Your task to perform on an android device: turn off smart reply in the gmail app Image 0: 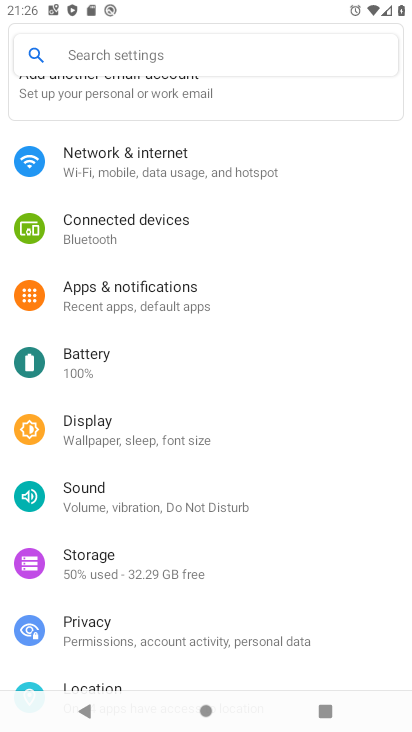
Step 0: press home button
Your task to perform on an android device: turn off smart reply in the gmail app Image 1: 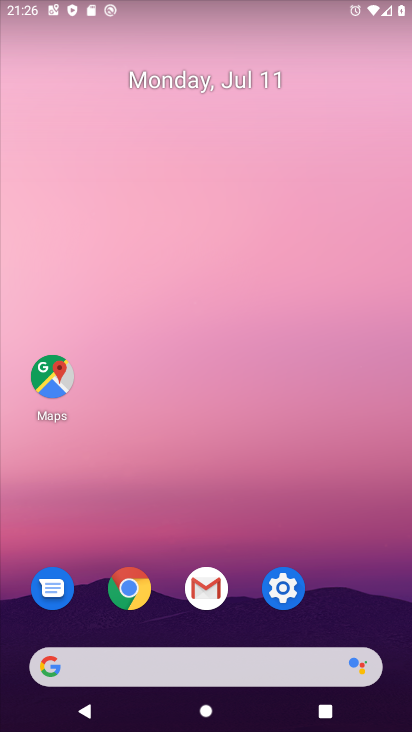
Step 1: click (217, 574)
Your task to perform on an android device: turn off smart reply in the gmail app Image 2: 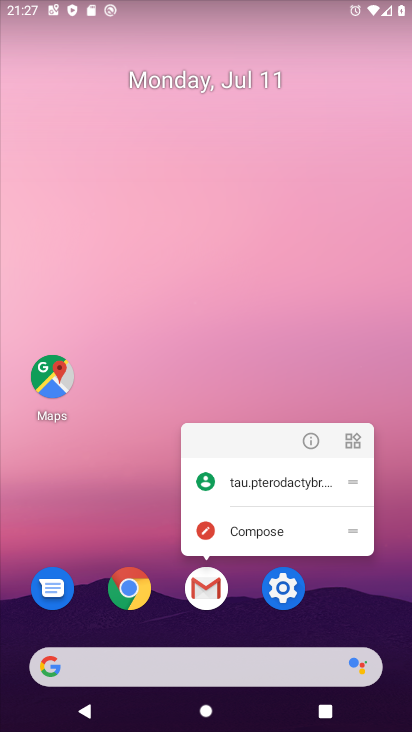
Step 2: click (211, 586)
Your task to perform on an android device: turn off smart reply in the gmail app Image 3: 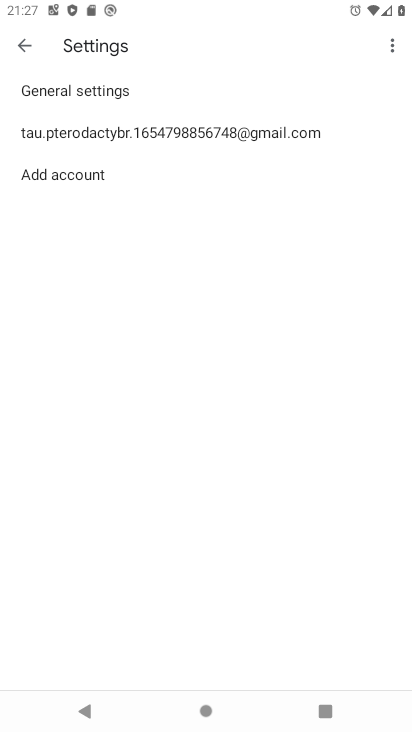
Step 3: click (167, 140)
Your task to perform on an android device: turn off smart reply in the gmail app Image 4: 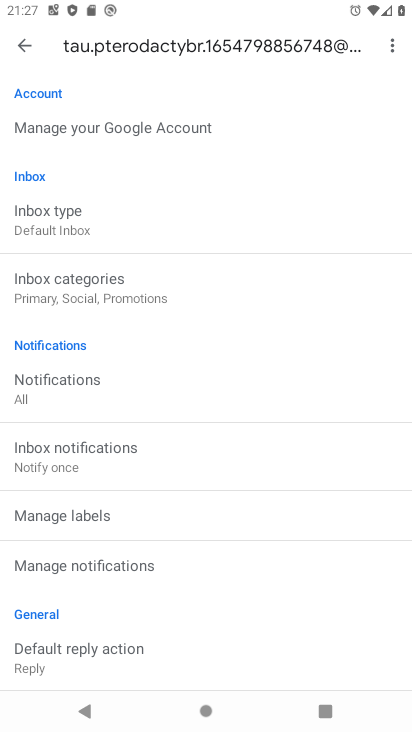
Step 4: drag from (202, 539) to (218, 234)
Your task to perform on an android device: turn off smart reply in the gmail app Image 5: 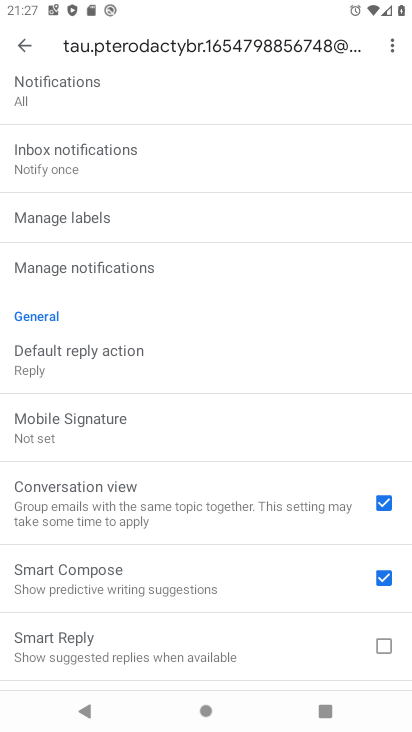
Step 5: click (377, 644)
Your task to perform on an android device: turn off smart reply in the gmail app Image 6: 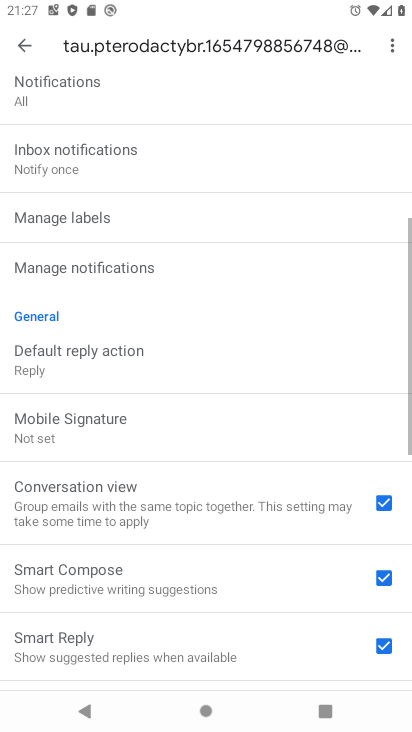
Step 6: click (377, 644)
Your task to perform on an android device: turn off smart reply in the gmail app Image 7: 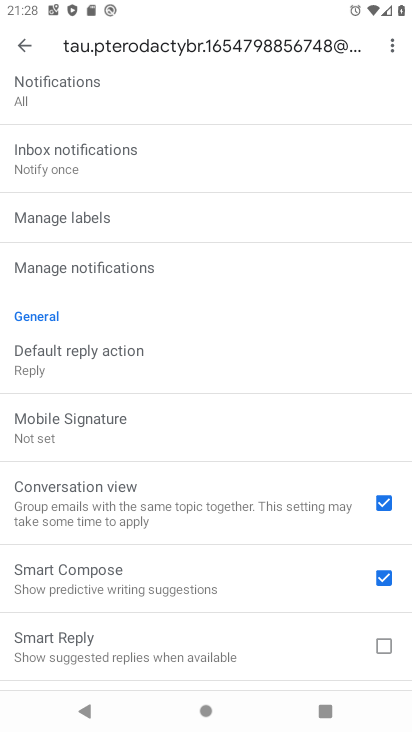
Step 7: task complete